Your task to perform on an android device: toggle notification dots Image 0: 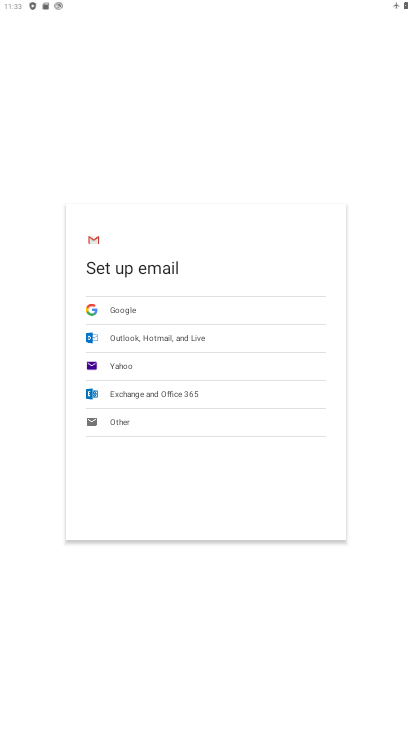
Step 0: press home button
Your task to perform on an android device: toggle notification dots Image 1: 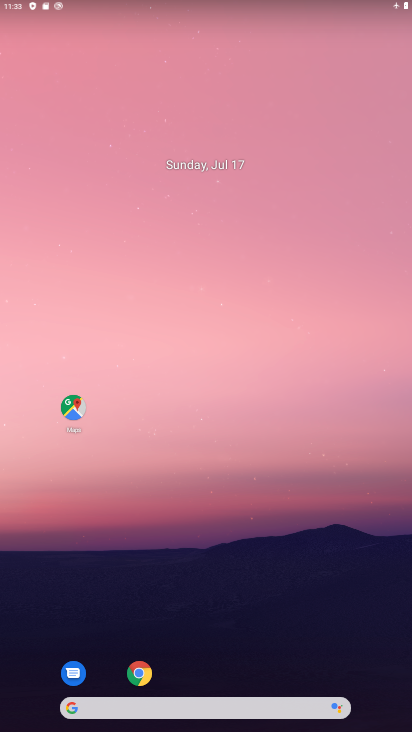
Step 1: drag from (245, 626) to (93, 29)
Your task to perform on an android device: toggle notification dots Image 2: 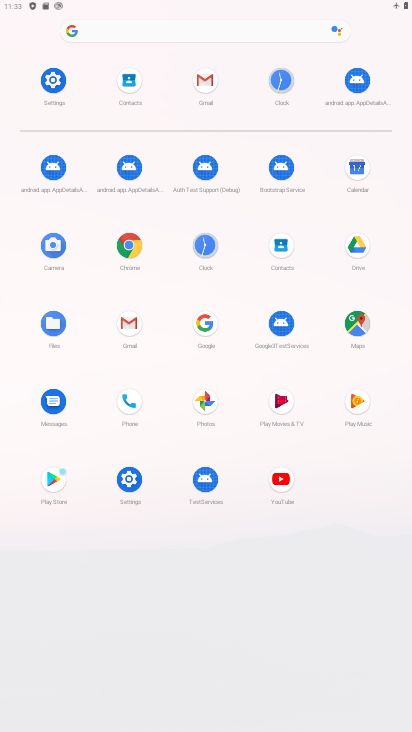
Step 2: click (50, 84)
Your task to perform on an android device: toggle notification dots Image 3: 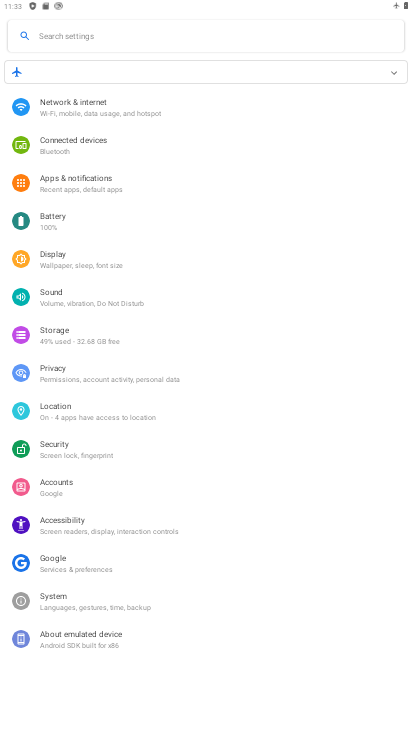
Step 3: click (67, 183)
Your task to perform on an android device: toggle notification dots Image 4: 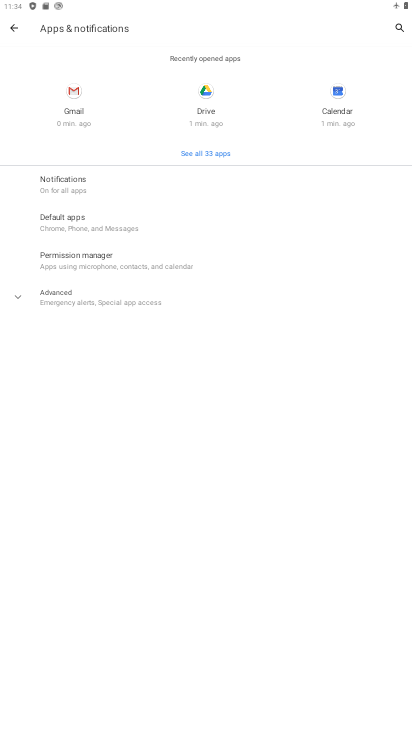
Step 4: click (59, 175)
Your task to perform on an android device: toggle notification dots Image 5: 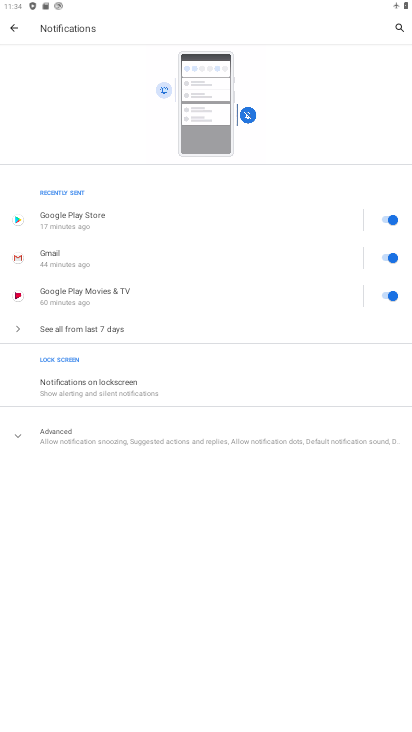
Step 5: click (16, 427)
Your task to perform on an android device: toggle notification dots Image 6: 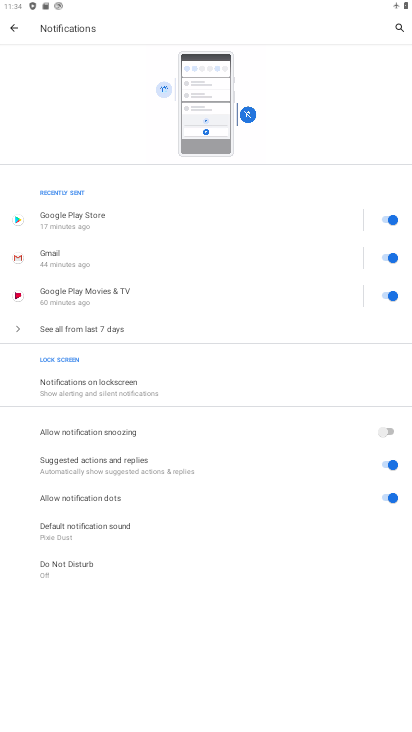
Step 6: click (226, 517)
Your task to perform on an android device: toggle notification dots Image 7: 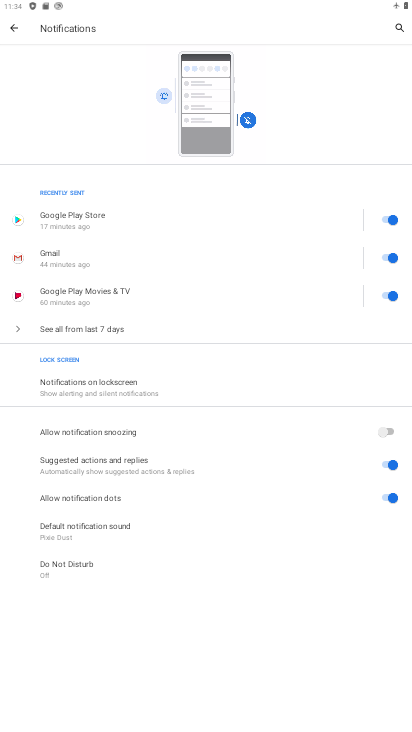
Step 7: click (229, 454)
Your task to perform on an android device: toggle notification dots Image 8: 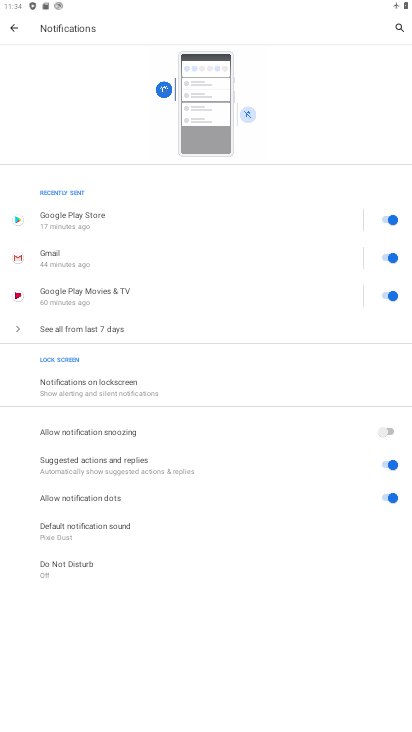
Step 8: click (391, 499)
Your task to perform on an android device: toggle notification dots Image 9: 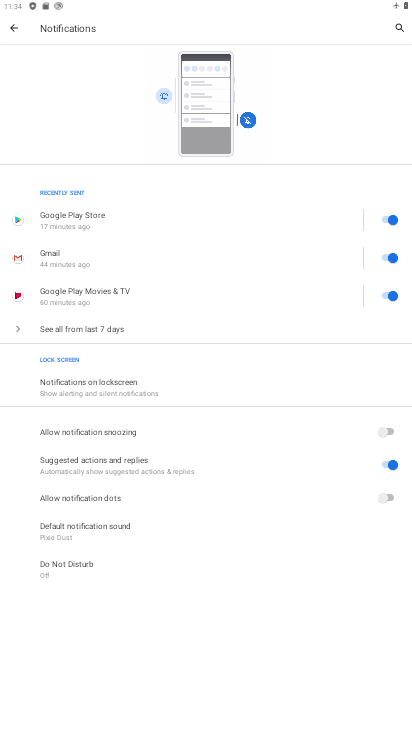
Step 9: task complete